Your task to perform on an android device: change the upload size in google photos Image 0: 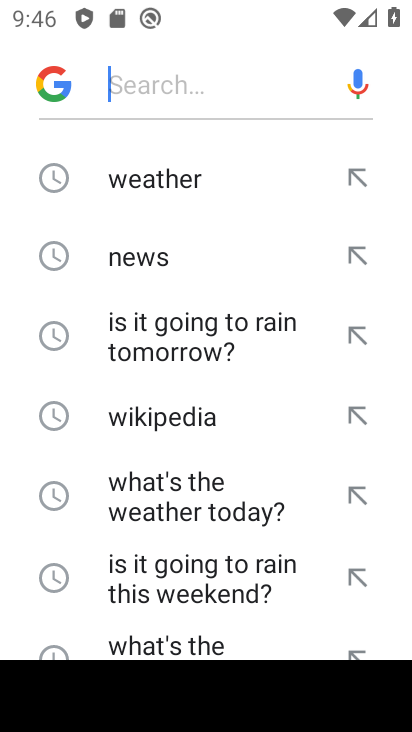
Step 0: press home button
Your task to perform on an android device: change the upload size in google photos Image 1: 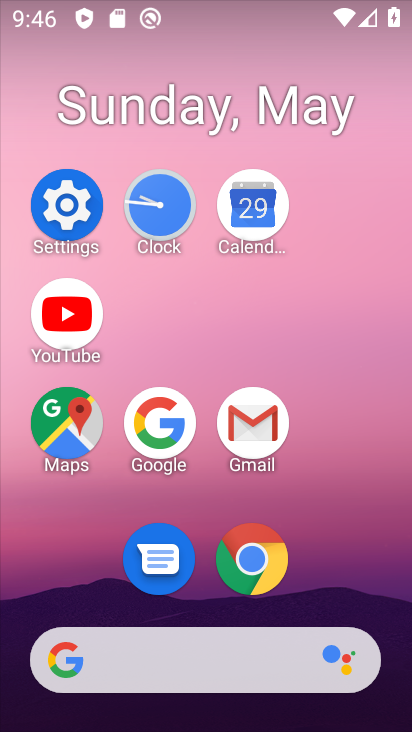
Step 1: drag from (350, 484) to (412, 150)
Your task to perform on an android device: change the upload size in google photos Image 2: 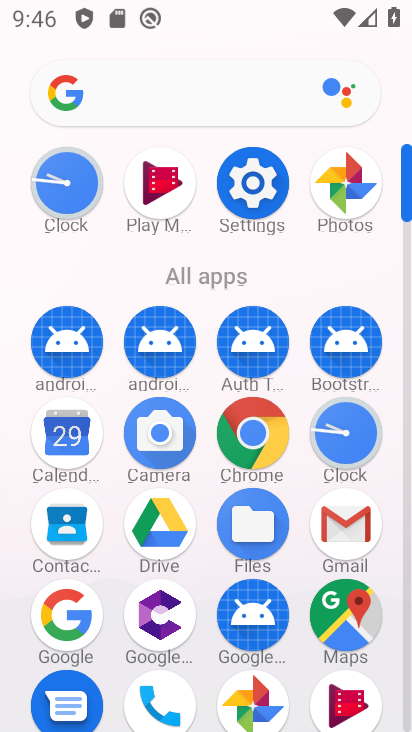
Step 2: drag from (344, 195) to (159, 310)
Your task to perform on an android device: change the upload size in google photos Image 3: 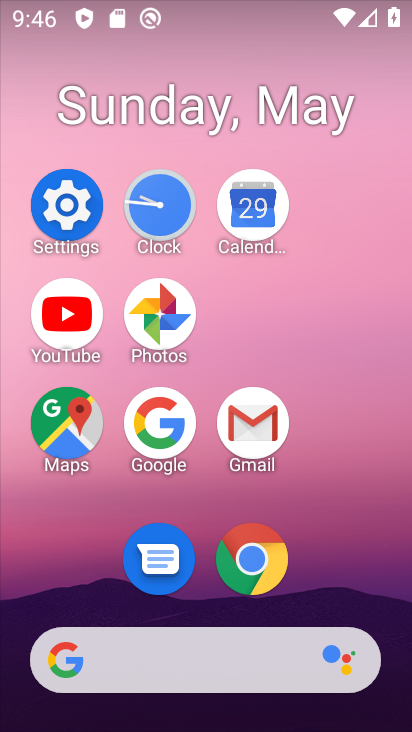
Step 3: click (158, 316)
Your task to perform on an android device: change the upload size in google photos Image 4: 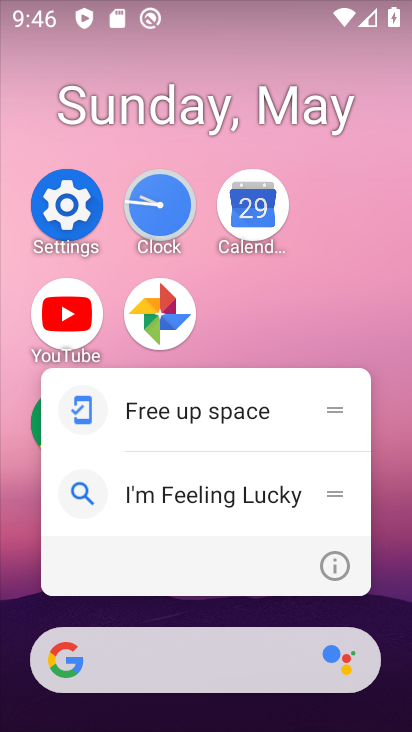
Step 4: click (178, 303)
Your task to perform on an android device: change the upload size in google photos Image 5: 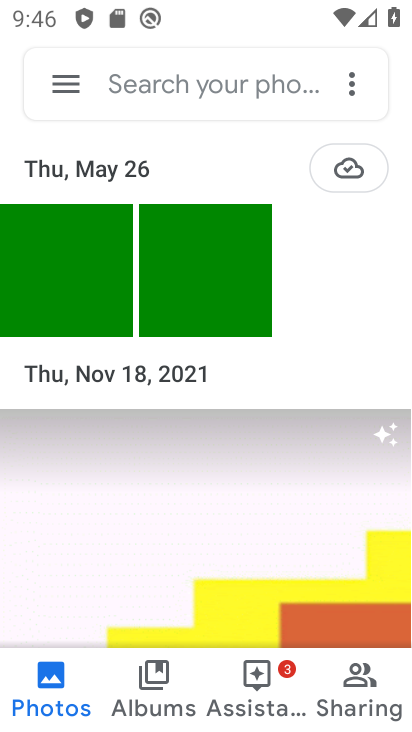
Step 5: click (365, 89)
Your task to perform on an android device: change the upload size in google photos Image 6: 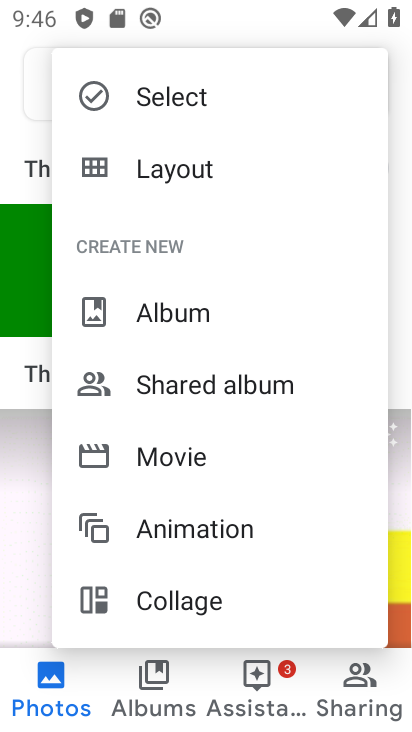
Step 6: click (32, 68)
Your task to perform on an android device: change the upload size in google photos Image 7: 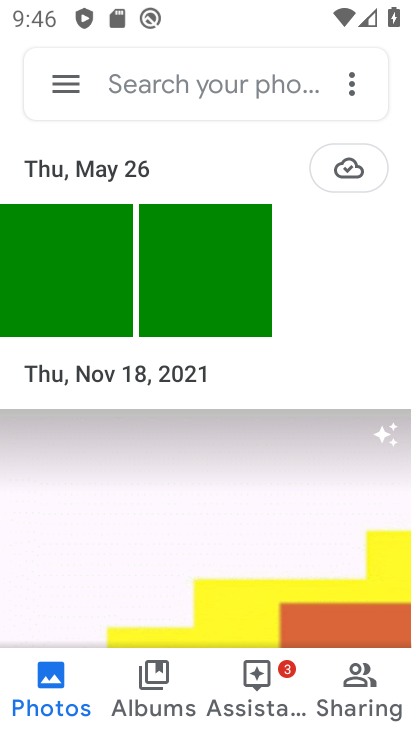
Step 7: click (57, 91)
Your task to perform on an android device: change the upload size in google photos Image 8: 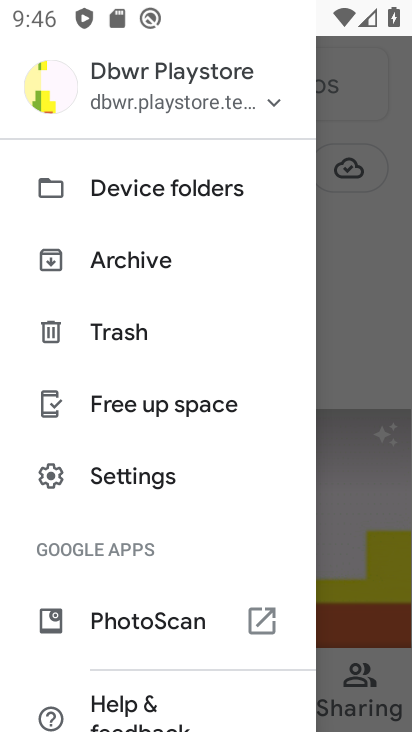
Step 8: click (162, 469)
Your task to perform on an android device: change the upload size in google photos Image 9: 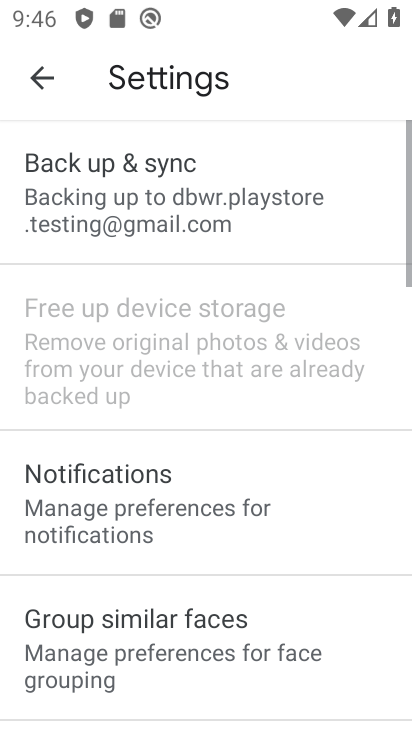
Step 9: click (116, 184)
Your task to perform on an android device: change the upload size in google photos Image 10: 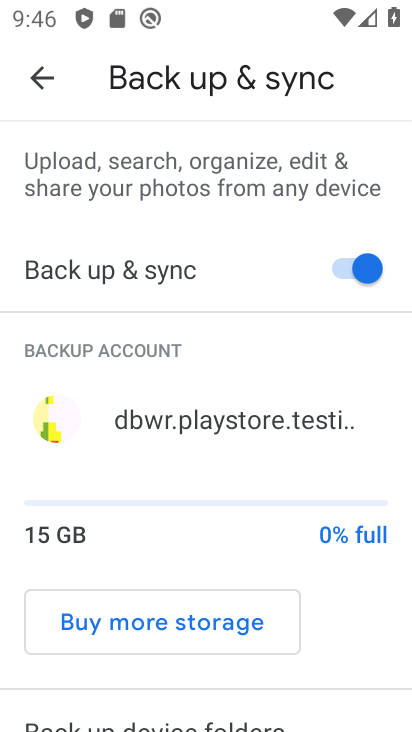
Step 10: drag from (200, 510) to (207, 160)
Your task to perform on an android device: change the upload size in google photos Image 11: 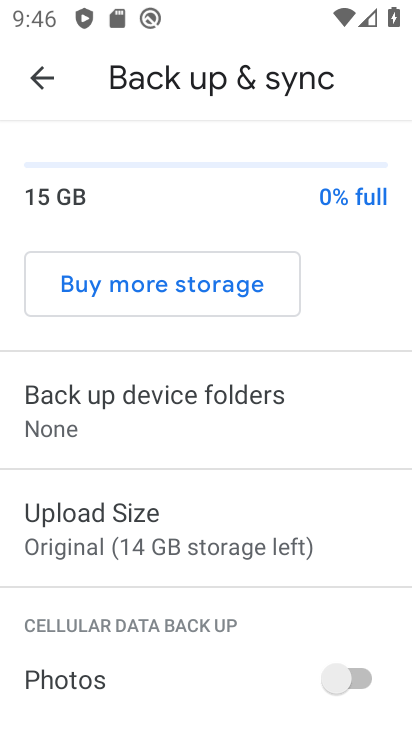
Step 11: click (244, 491)
Your task to perform on an android device: change the upload size in google photos Image 12: 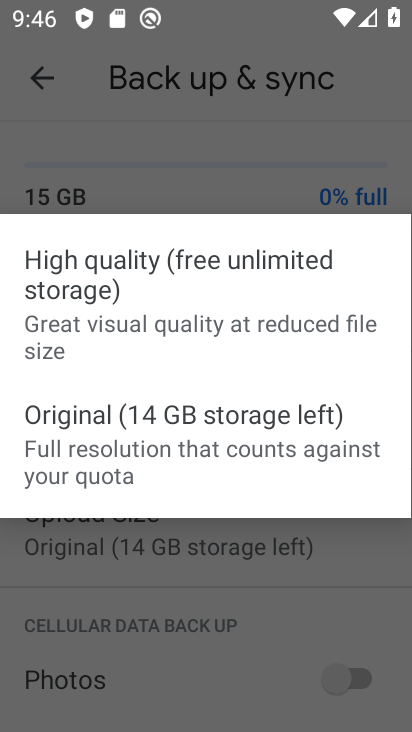
Step 12: click (233, 290)
Your task to perform on an android device: change the upload size in google photos Image 13: 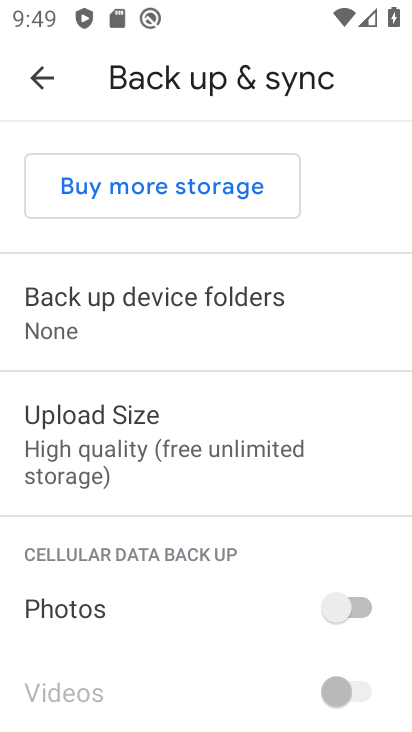
Step 13: task complete